Your task to perform on an android device: Open the map Image 0: 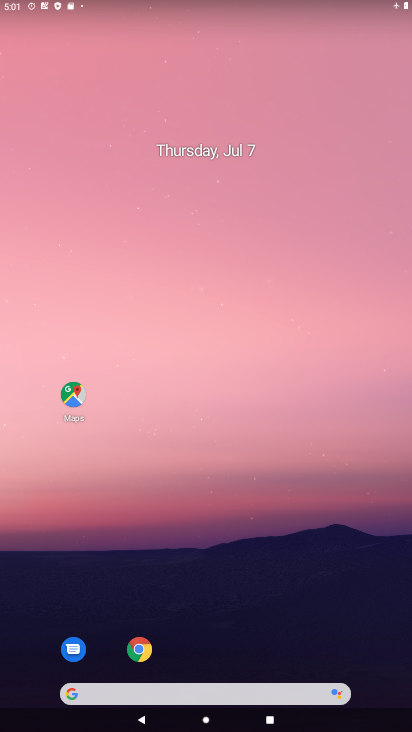
Step 0: drag from (338, 651) to (215, 153)
Your task to perform on an android device: Open the map Image 1: 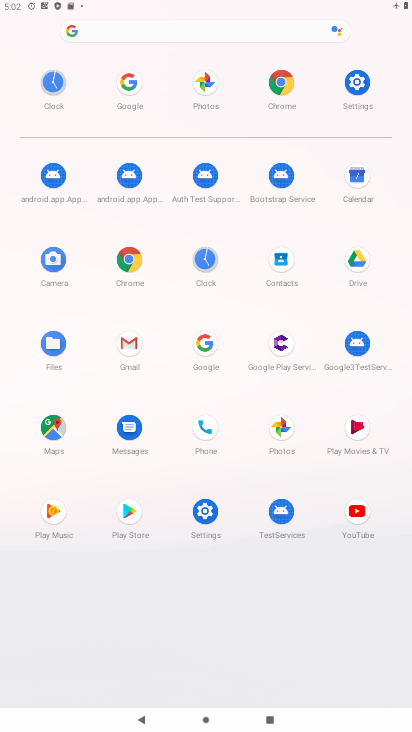
Step 1: click (51, 422)
Your task to perform on an android device: Open the map Image 2: 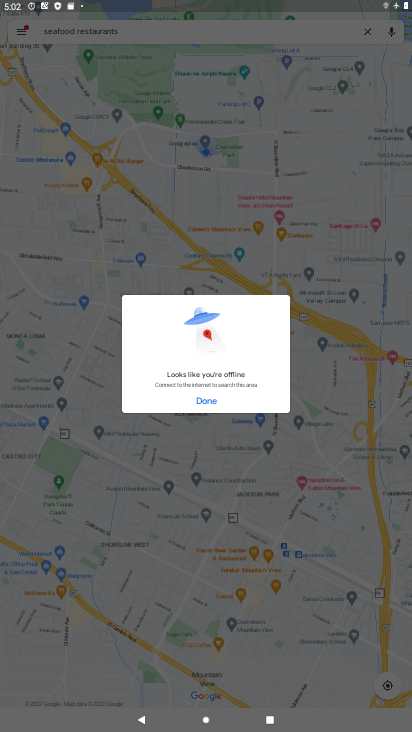
Step 2: task complete